Your task to perform on an android device: Open Google Image 0: 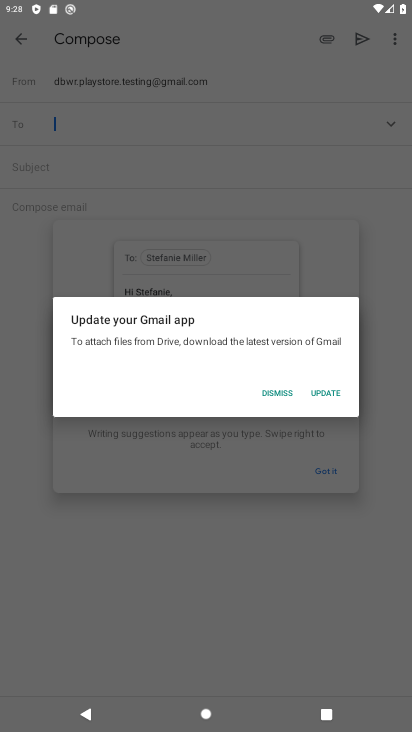
Step 0: press home button
Your task to perform on an android device: Open Google Image 1: 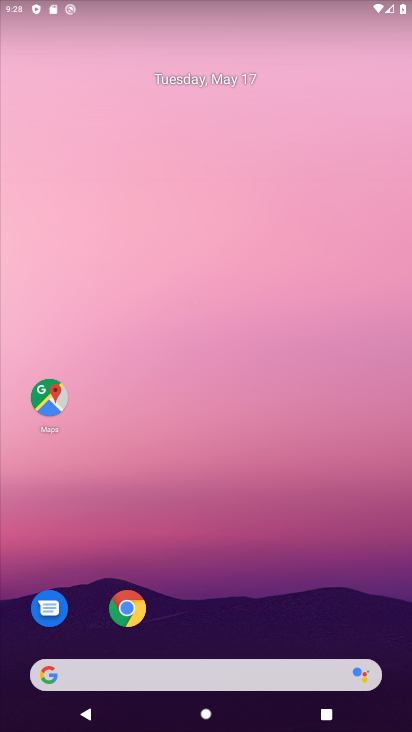
Step 1: click (53, 674)
Your task to perform on an android device: Open Google Image 2: 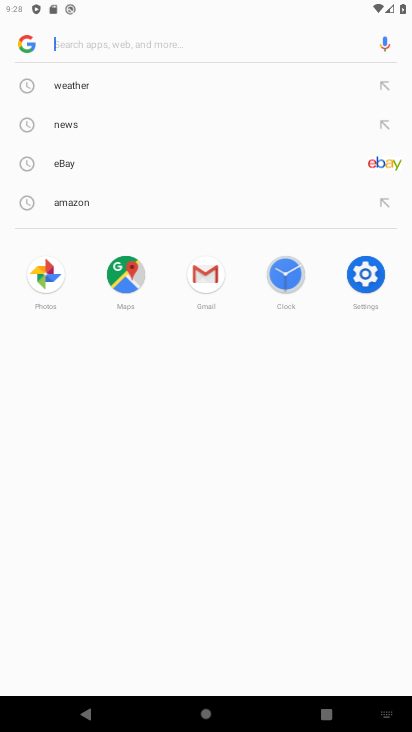
Step 2: task complete